Your task to perform on an android device: Open network settings Image 0: 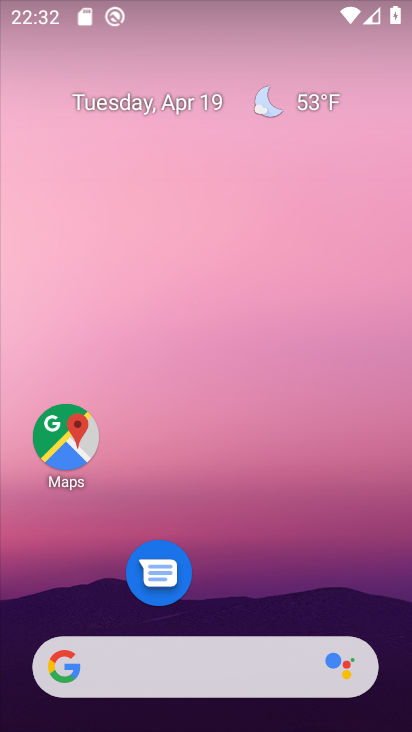
Step 0: drag from (220, 580) to (267, 75)
Your task to perform on an android device: Open network settings Image 1: 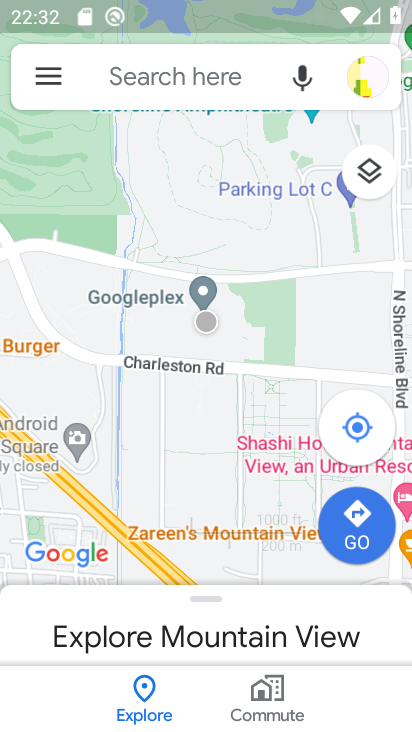
Step 1: press home button
Your task to perform on an android device: Open network settings Image 2: 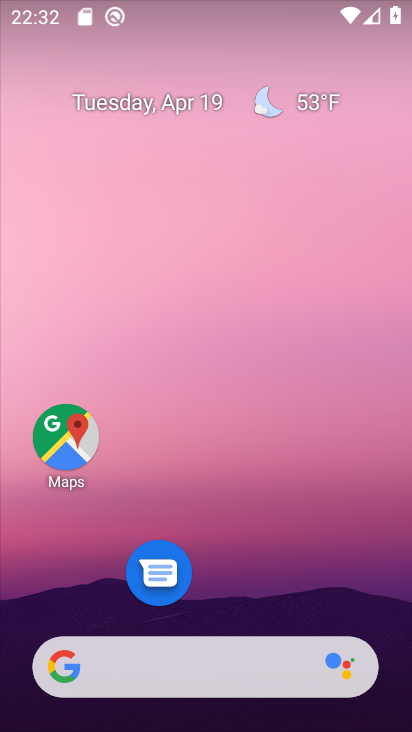
Step 2: drag from (226, 609) to (295, 0)
Your task to perform on an android device: Open network settings Image 3: 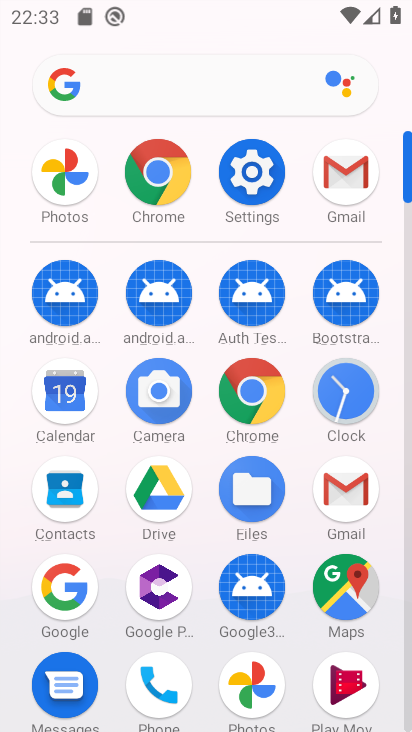
Step 3: click (250, 165)
Your task to perform on an android device: Open network settings Image 4: 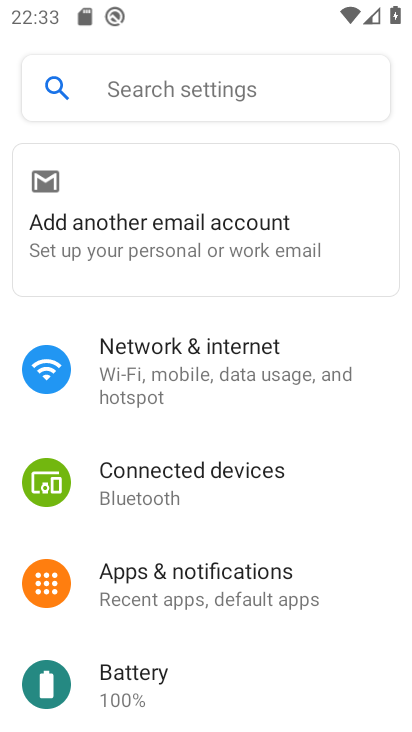
Step 4: click (88, 370)
Your task to perform on an android device: Open network settings Image 5: 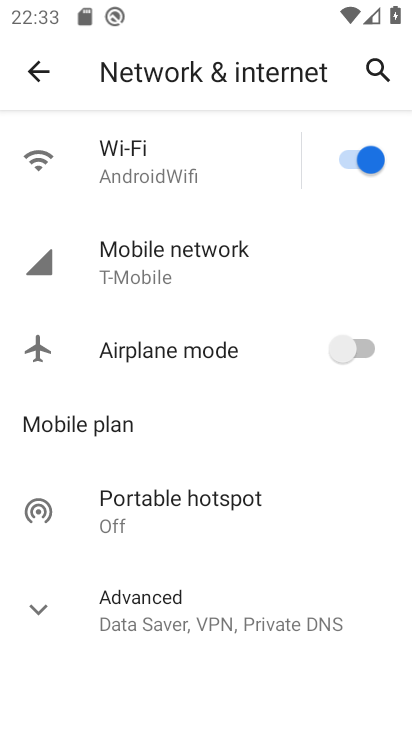
Step 5: click (37, 602)
Your task to perform on an android device: Open network settings Image 6: 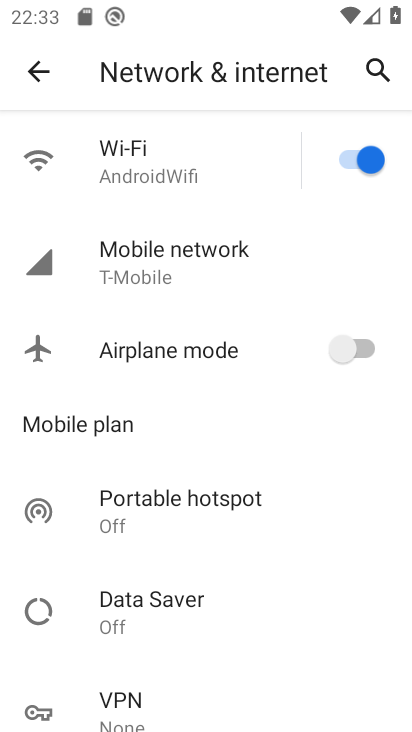
Step 6: task complete